Your task to perform on an android device: choose inbox layout in the gmail app Image 0: 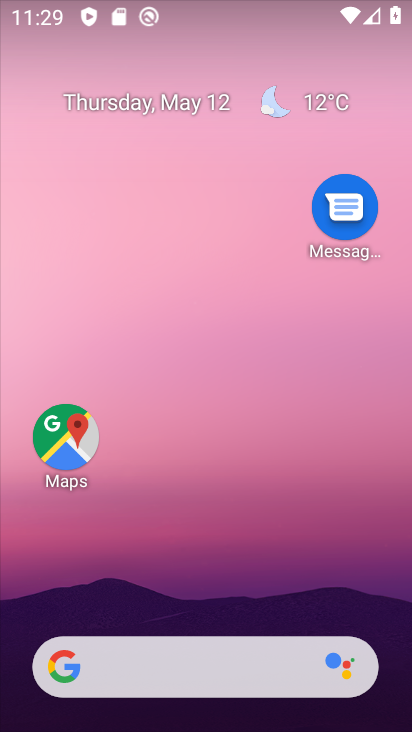
Step 0: press home button
Your task to perform on an android device: choose inbox layout in the gmail app Image 1: 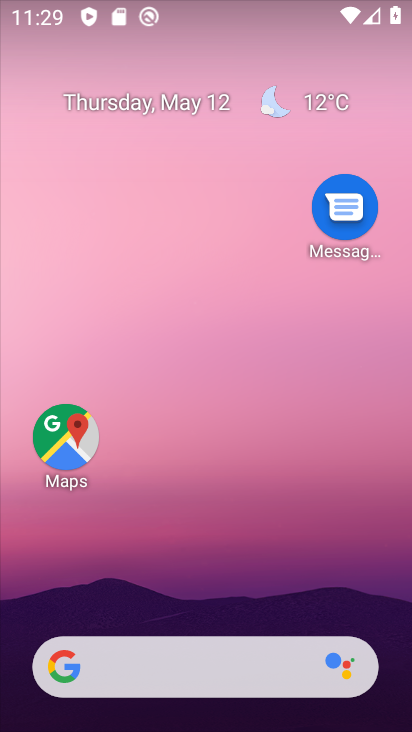
Step 1: drag from (298, 625) to (242, 105)
Your task to perform on an android device: choose inbox layout in the gmail app Image 2: 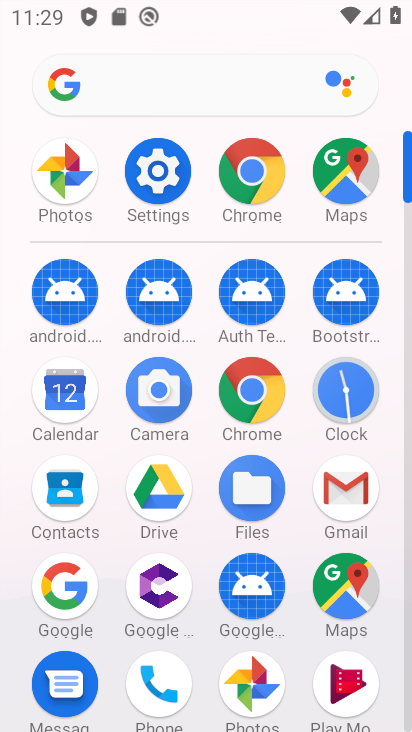
Step 2: click (338, 484)
Your task to perform on an android device: choose inbox layout in the gmail app Image 3: 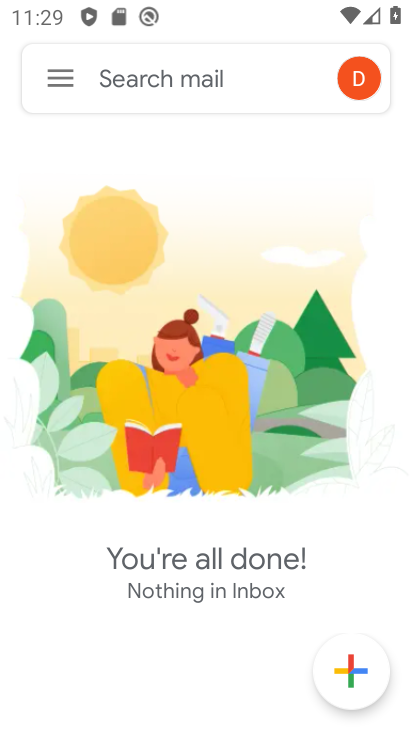
Step 3: click (68, 65)
Your task to perform on an android device: choose inbox layout in the gmail app Image 4: 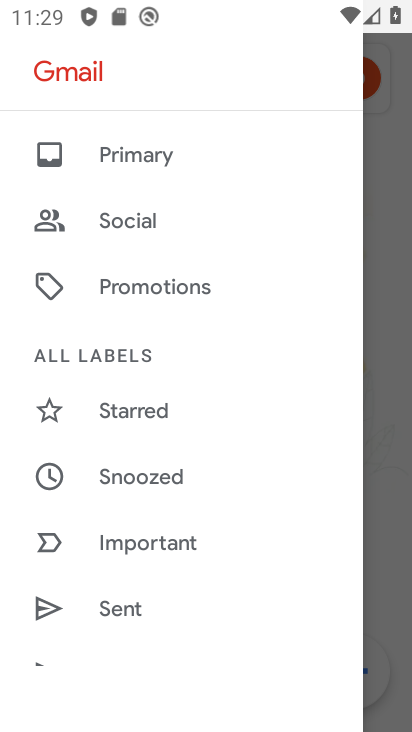
Step 4: drag from (165, 642) to (224, 179)
Your task to perform on an android device: choose inbox layout in the gmail app Image 5: 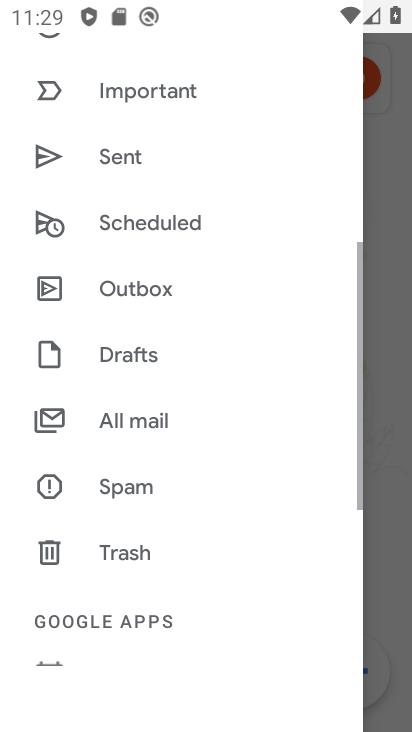
Step 5: drag from (193, 584) to (178, 92)
Your task to perform on an android device: choose inbox layout in the gmail app Image 6: 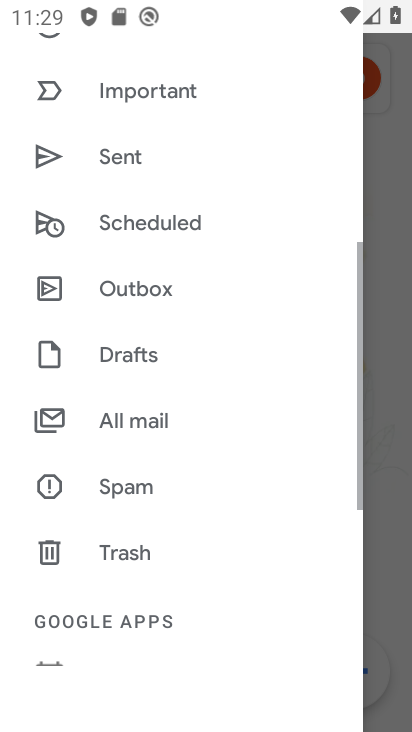
Step 6: drag from (189, 332) to (221, 4)
Your task to perform on an android device: choose inbox layout in the gmail app Image 7: 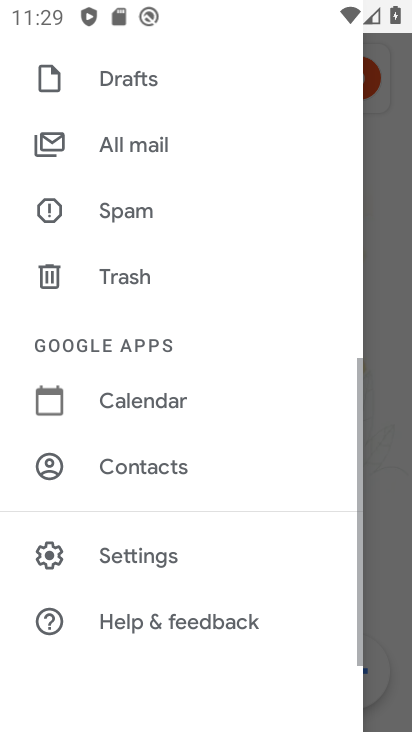
Step 7: click (134, 561)
Your task to perform on an android device: choose inbox layout in the gmail app Image 8: 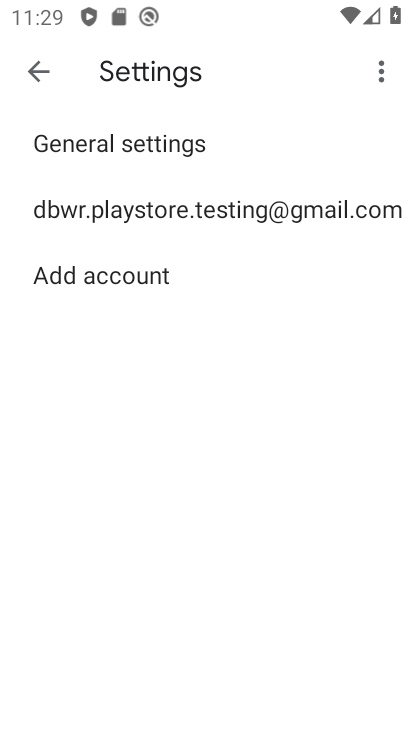
Step 8: click (281, 217)
Your task to perform on an android device: choose inbox layout in the gmail app Image 9: 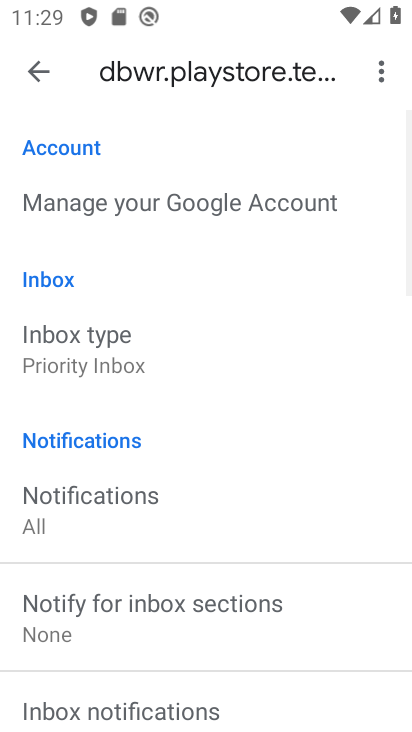
Step 9: click (125, 382)
Your task to perform on an android device: choose inbox layout in the gmail app Image 10: 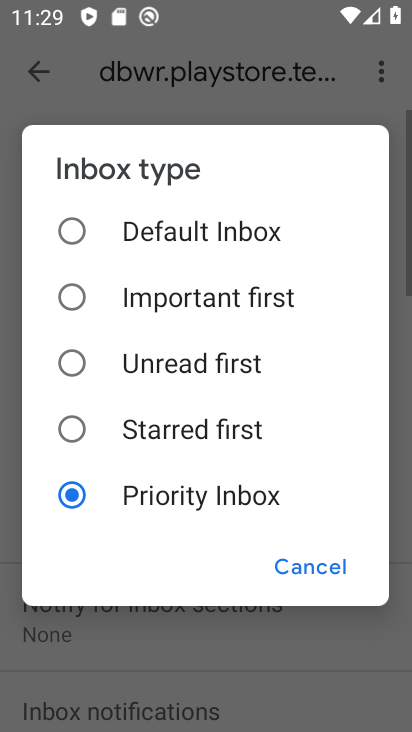
Step 10: click (125, 382)
Your task to perform on an android device: choose inbox layout in the gmail app Image 11: 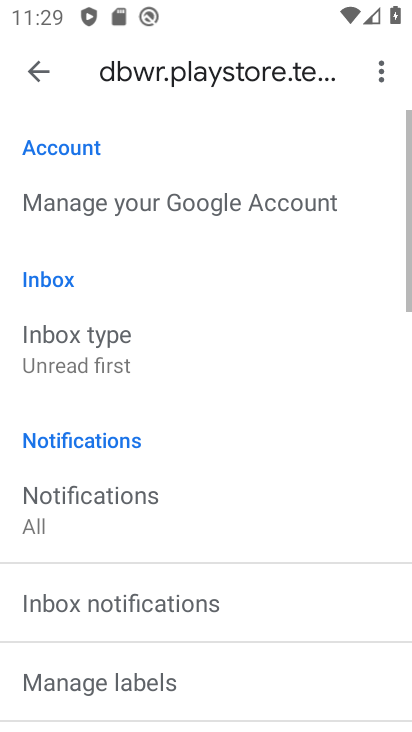
Step 11: task complete